Your task to perform on an android device: Open Chrome and go to the settings page Image 0: 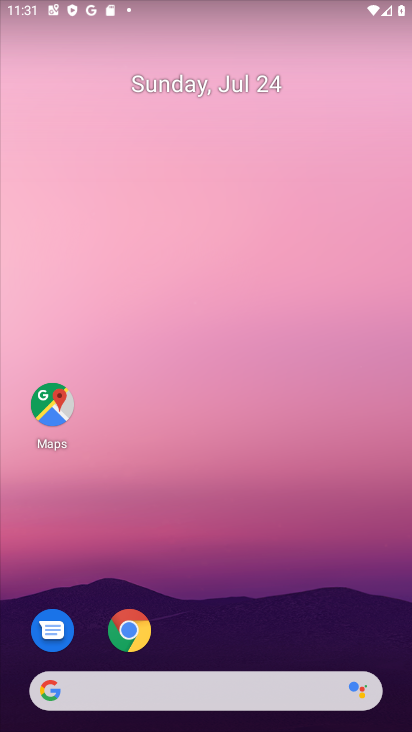
Step 0: press home button
Your task to perform on an android device: Open Chrome and go to the settings page Image 1: 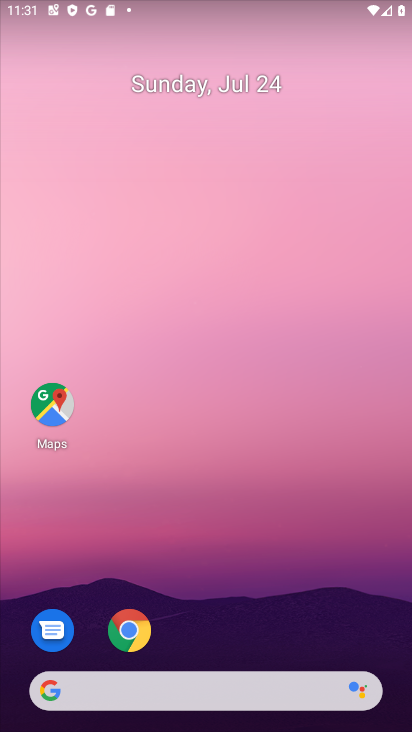
Step 1: drag from (291, 696) to (306, 646)
Your task to perform on an android device: Open Chrome and go to the settings page Image 2: 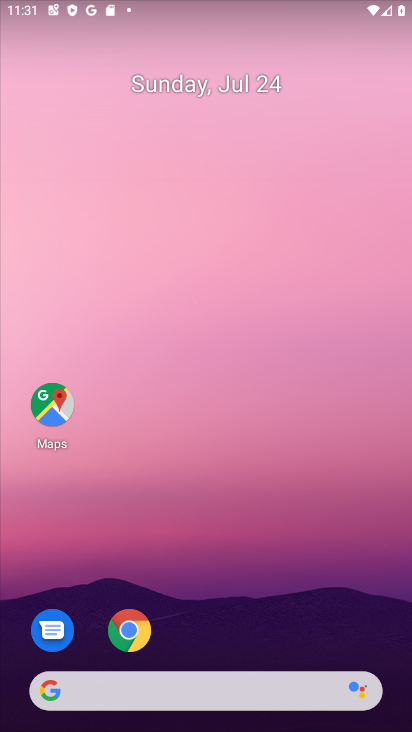
Step 2: click (139, 628)
Your task to perform on an android device: Open Chrome and go to the settings page Image 3: 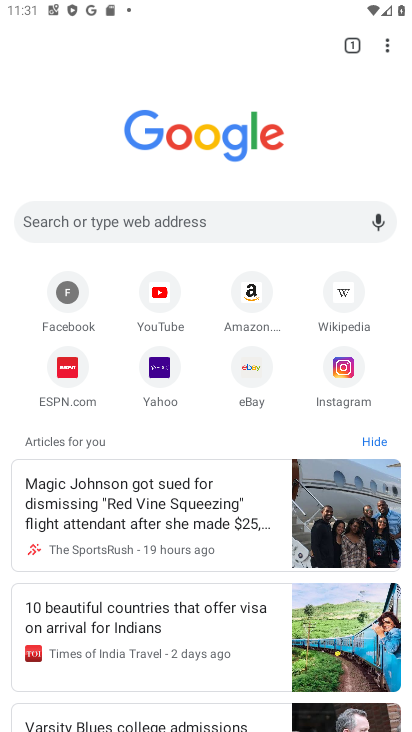
Step 3: task complete